Your task to perform on an android device: change the clock display to analog Image 0: 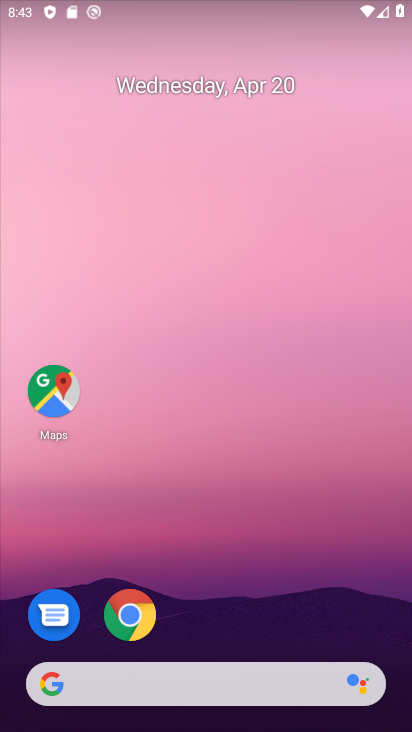
Step 0: drag from (270, 582) to (283, 139)
Your task to perform on an android device: change the clock display to analog Image 1: 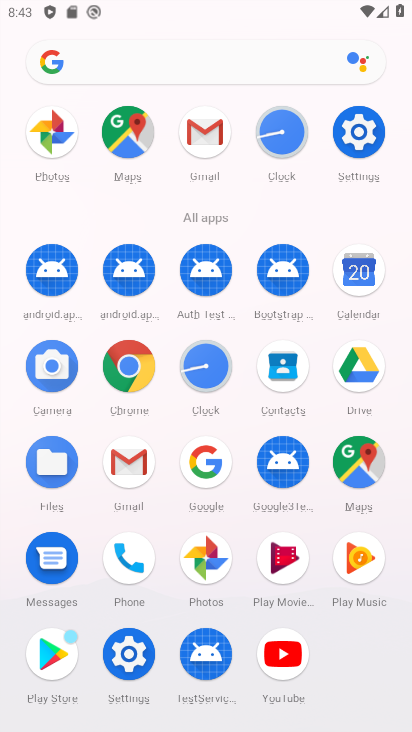
Step 1: click (207, 353)
Your task to perform on an android device: change the clock display to analog Image 2: 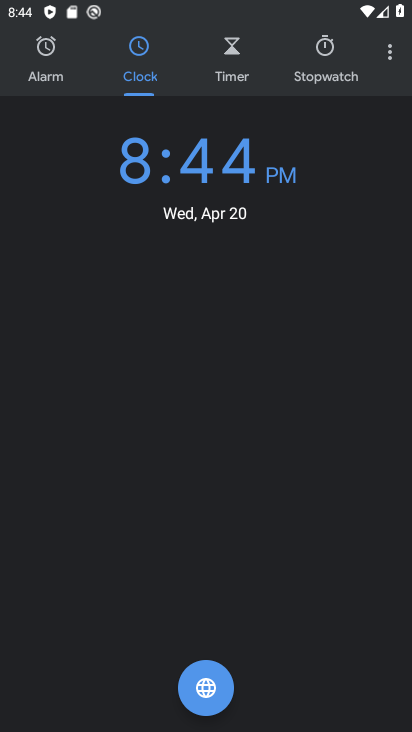
Step 2: click (388, 48)
Your task to perform on an android device: change the clock display to analog Image 3: 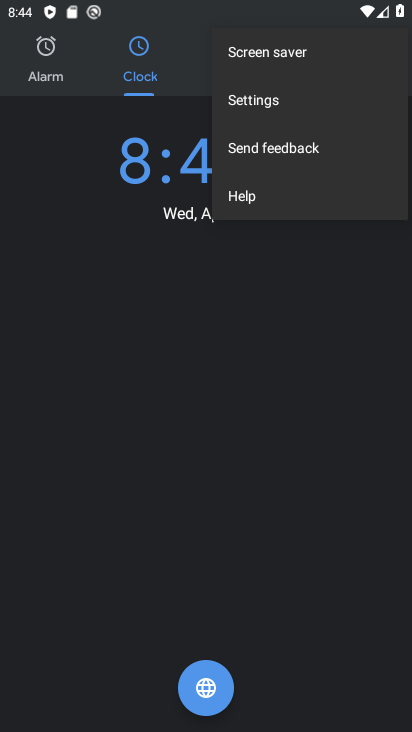
Step 3: click (289, 108)
Your task to perform on an android device: change the clock display to analog Image 4: 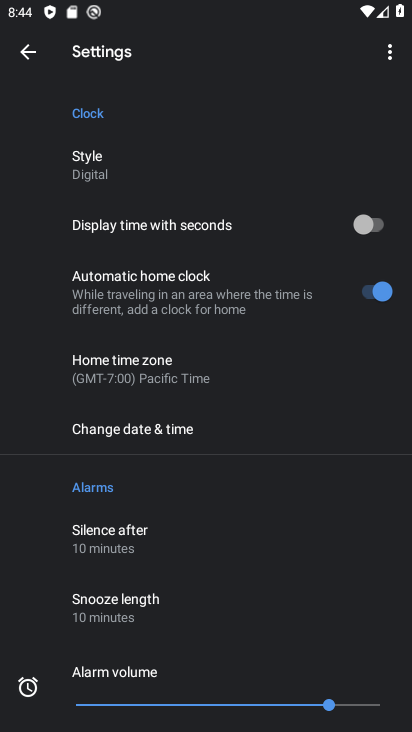
Step 4: click (155, 173)
Your task to perform on an android device: change the clock display to analog Image 5: 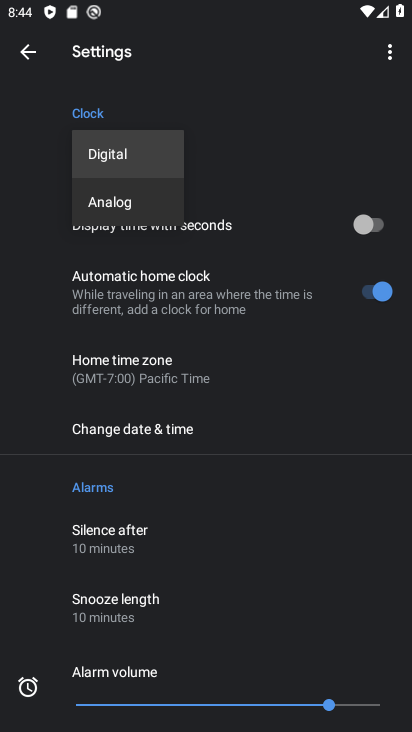
Step 5: click (138, 212)
Your task to perform on an android device: change the clock display to analog Image 6: 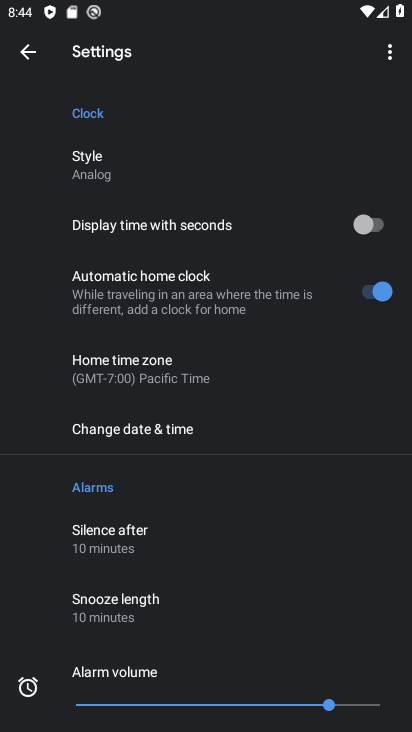
Step 6: task complete